Your task to perform on an android device: open a bookmark in the chrome app Image 0: 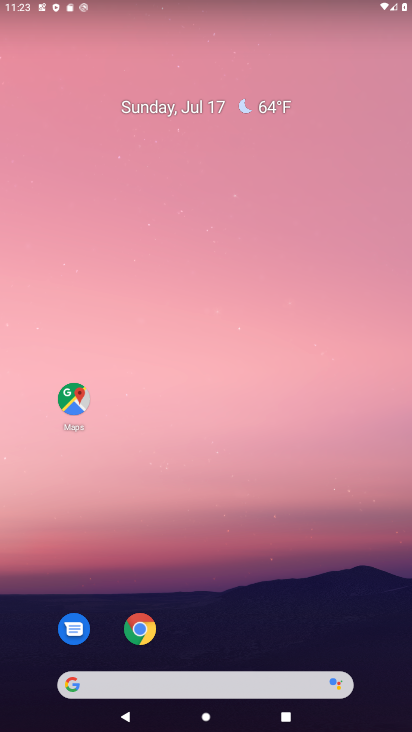
Step 0: drag from (232, 583) to (261, 188)
Your task to perform on an android device: open a bookmark in the chrome app Image 1: 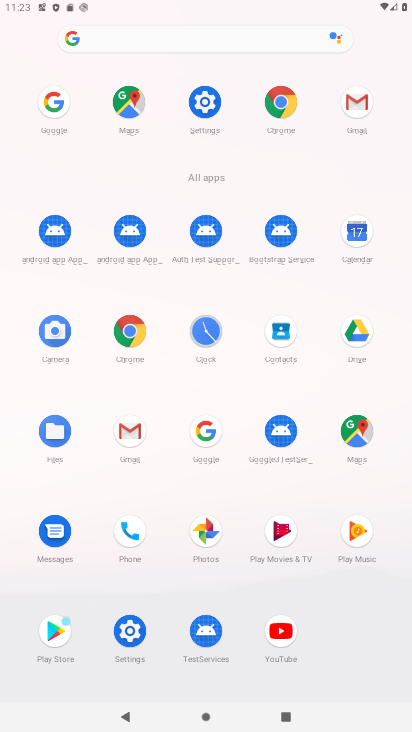
Step 1: click (291, 93)
Your task to perform on an android device: open a bookmark in the chrome app Image 2: 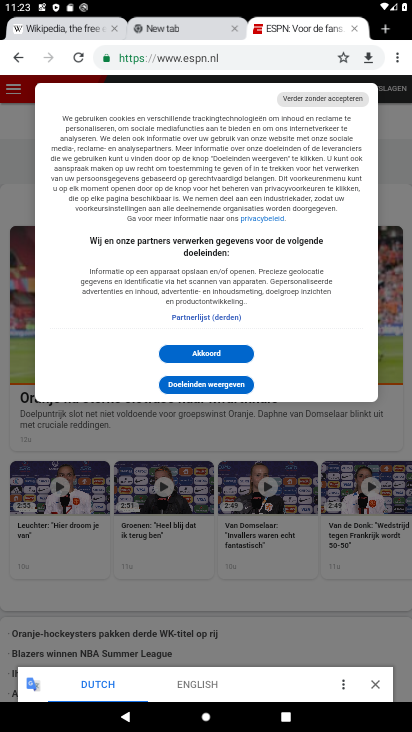
Step 2: click (395, 59)
Your task to perform on an android device: open a bookmark in the chrome app Image 3: 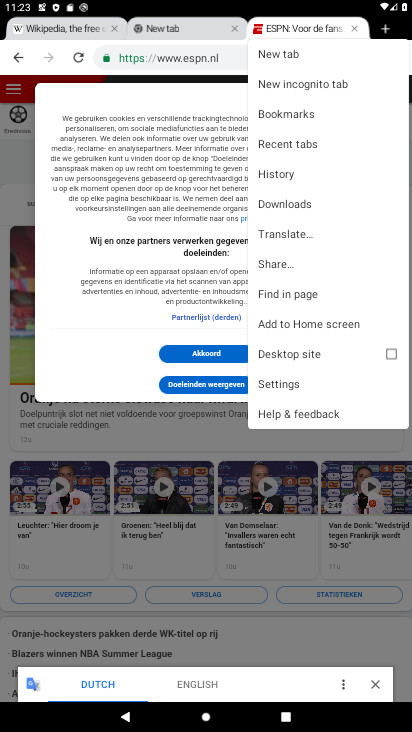
Step 3: click (303, 119)
Your task to perform on an android device: open a bookmark in the chrome app Image 4: 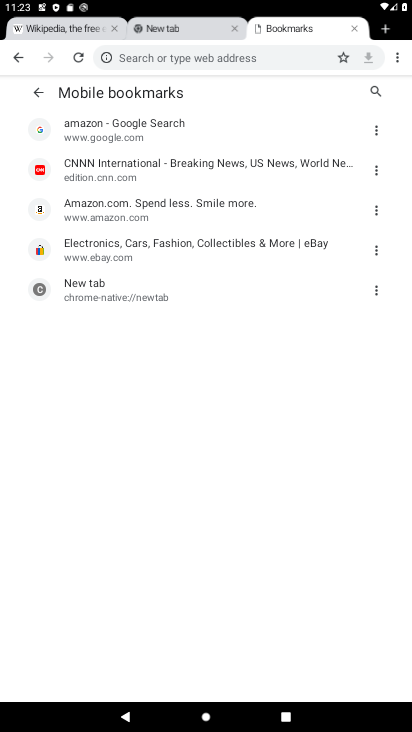
Step 4: task complete